Your task to perform on an android device: Go to Amazon Image 0: 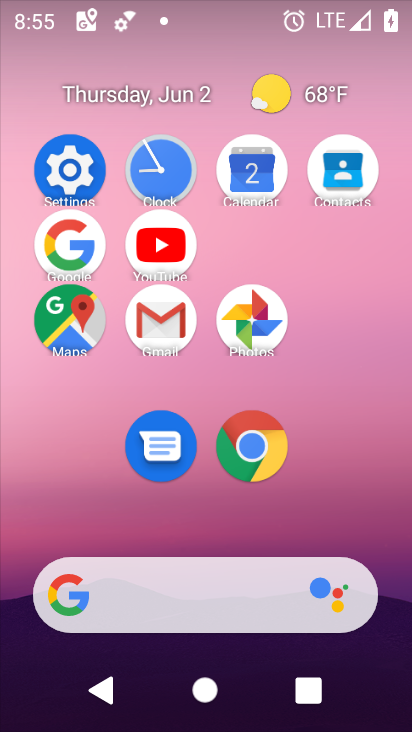
Step 0: click (266, 450)
Your task to perform on an android device: Go to Amazon Image 1: 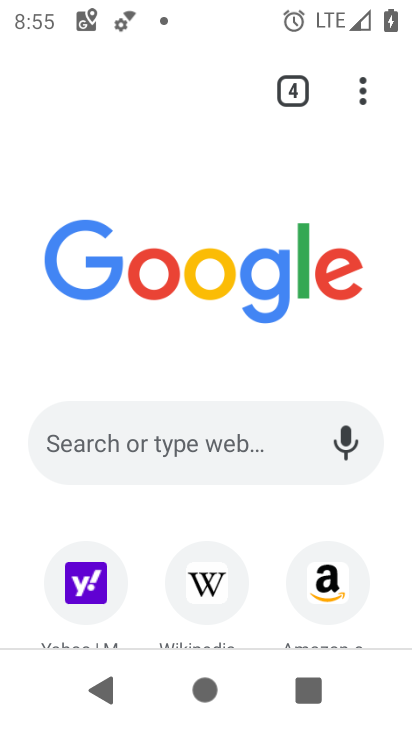
Step 1: click (336, 568)
Your task to perform on an android device: Go to Amazon Image 2: 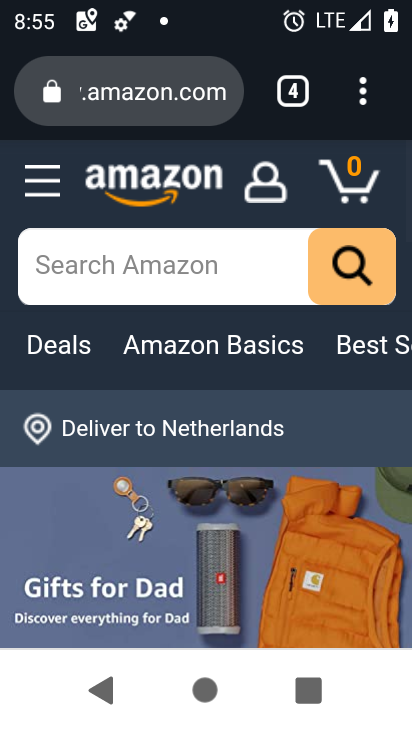
Step 2: task complete